Your task to perform on an android device: make emails show in primary in the gmail app Image 0: 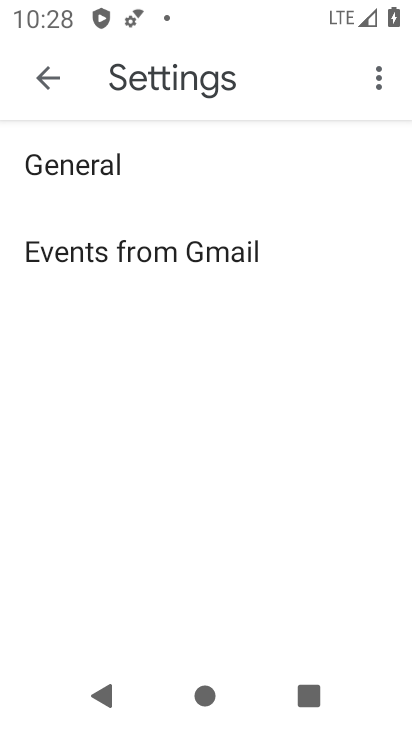
Step 0: press home button
Your task to perform on an android device: make emails show in primary in the gmail app Image 1: 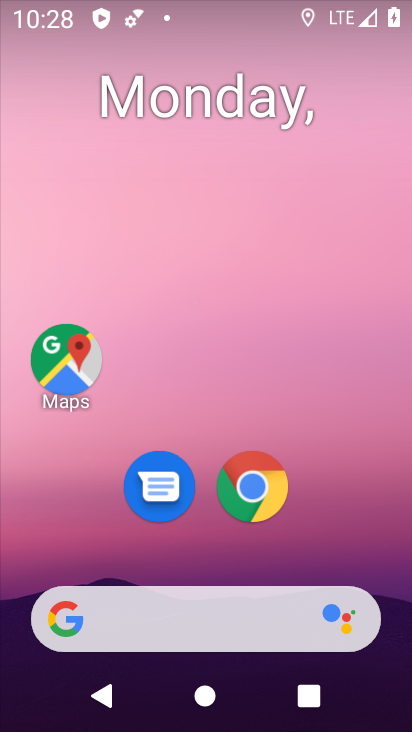
Step 1: drag from (7, 534) to (279, 186)
Your task to perform on an android device: make emails show in primary in the gmail app Image 2: 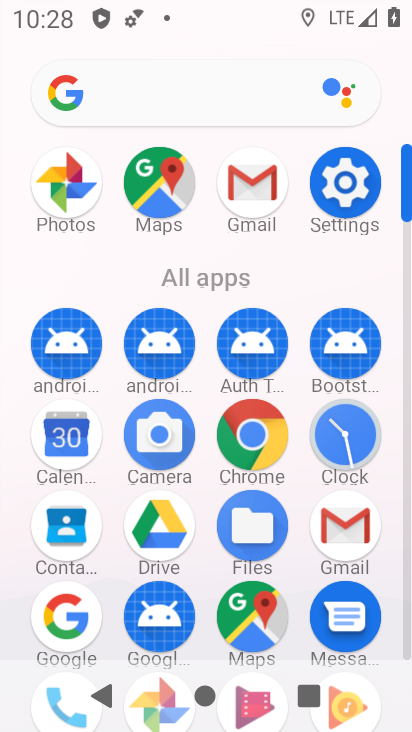
Step 2: click (236, 196)
Your task to perform on an android device: make emails show in primary in the gmail app Image 3: 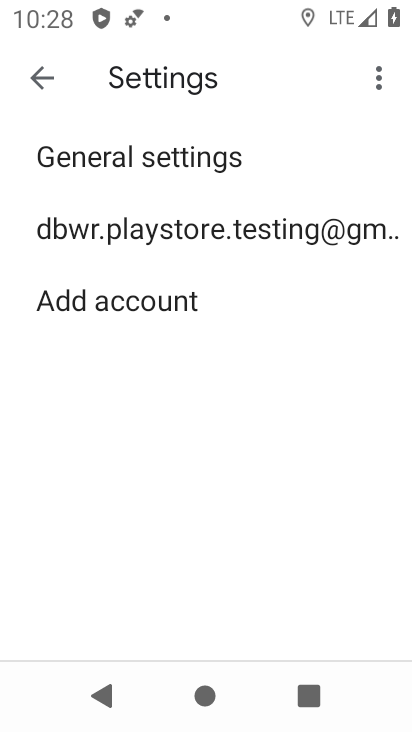
Step 3: click (208, 227)
Your task to perform on an android device: make emails show in primary in the gmail app Image 4: 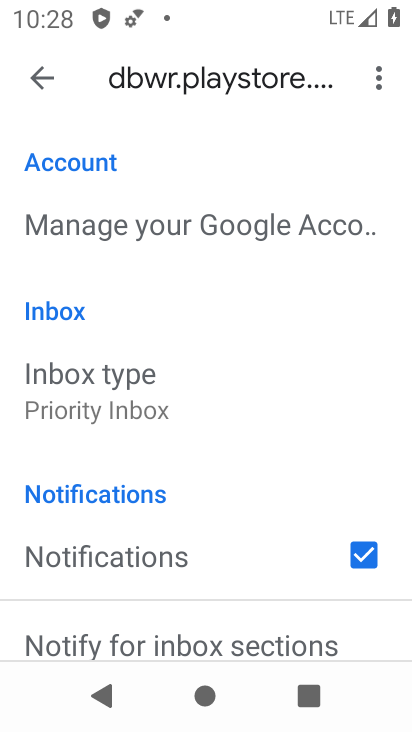
Step 4: task complete